Your task to perform on an android device: Do I have any events today? Image 0: 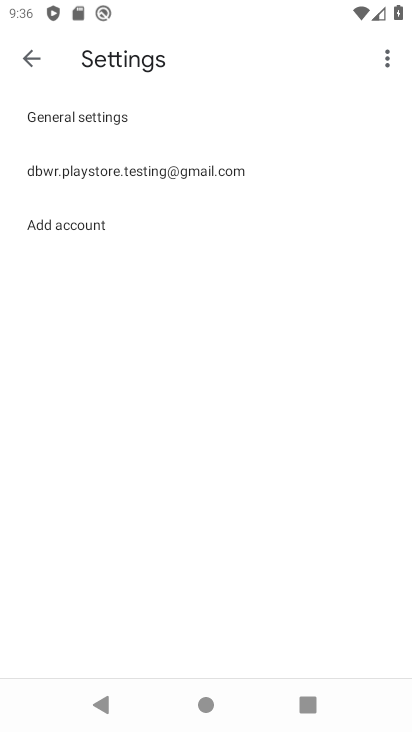
Step 0: press home button
Your task to perform on an android device: Do I have any events today? Image 1: 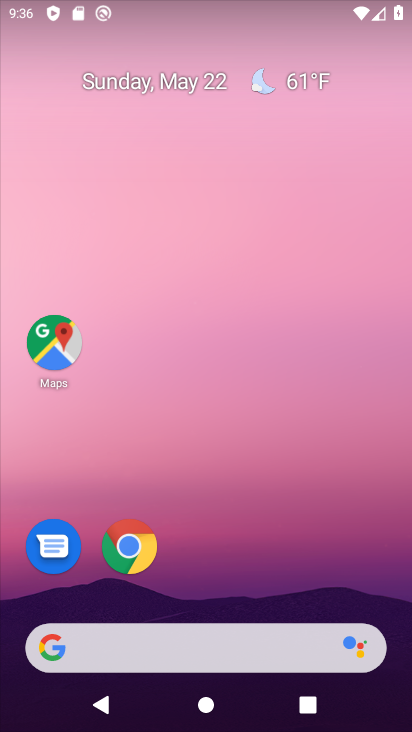
Step 1: drag from (218, 636) to (221, 13)
Your task to perform on an android device: Do I have any events today? Image 2: 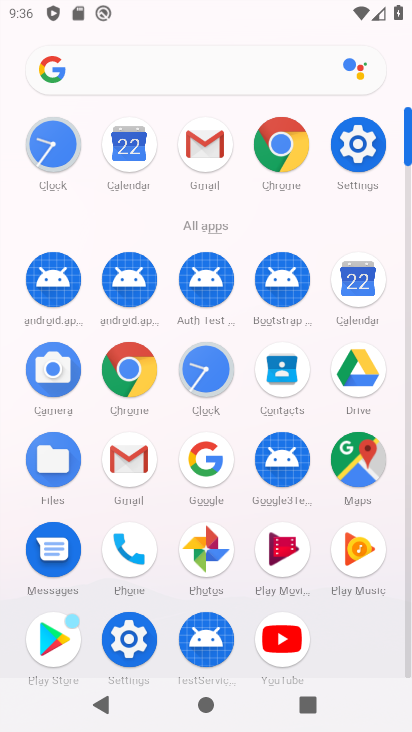
Step 2: click (364, 288)
Your task to perform on an android device: Do I have any events today? Image 3: 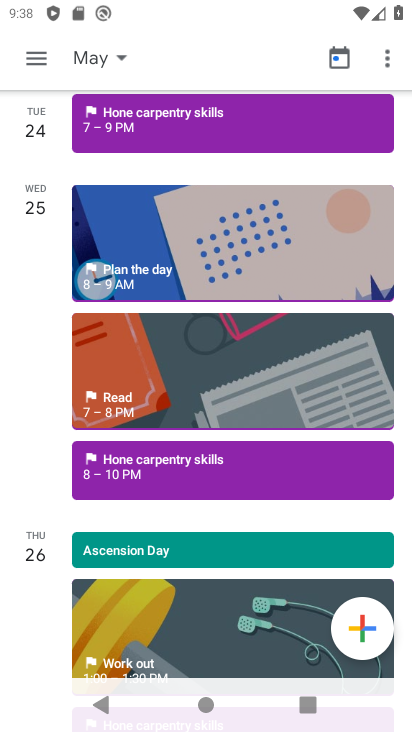
Step 3: click (39, 48)
Your task to perform on an android device: Do I have any events today? Image 4: 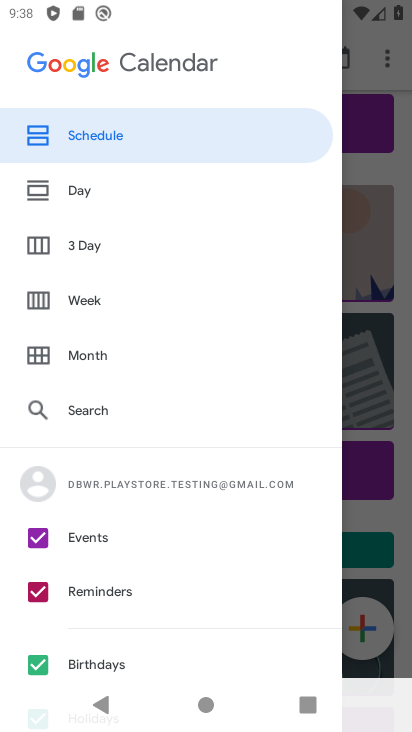
Step 4: click (89, 131)
Your task to perform on an android device: Do I have any events today? Image 5: 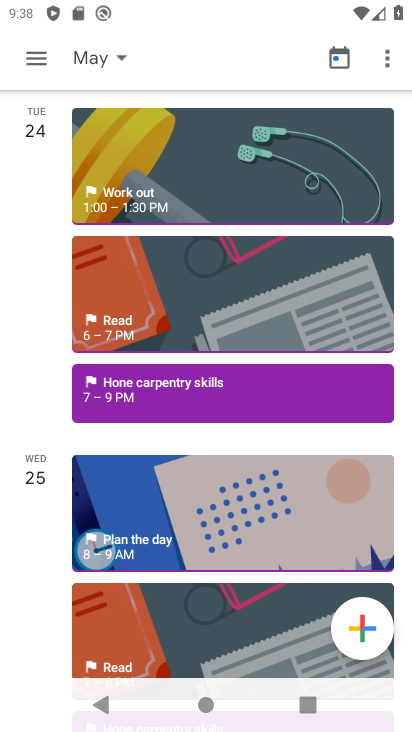
Step 5: task complete